Your task to perform on an android device: turn off location Image 0: 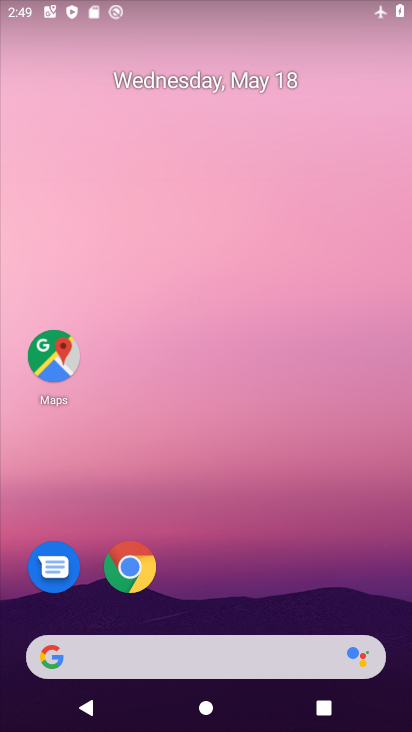
Step 0: drag from (255, 551) to (273, 168)
Your task to perform on an android device: turn off location Image 1: 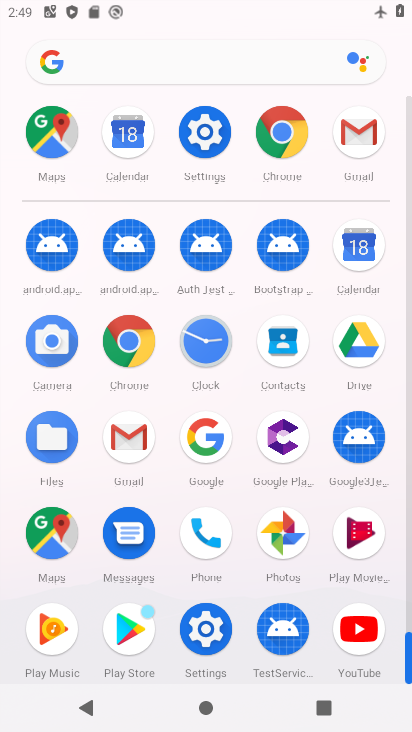
Step 1: click (207, 135)
Your task to perform on an android device: turn off location Image 2: 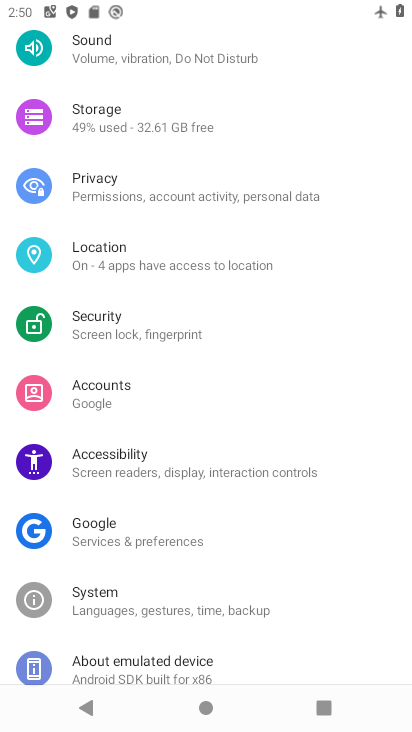
Step 2: click (122, 250)
Your task to perform on an android device: turn off location Image 3: 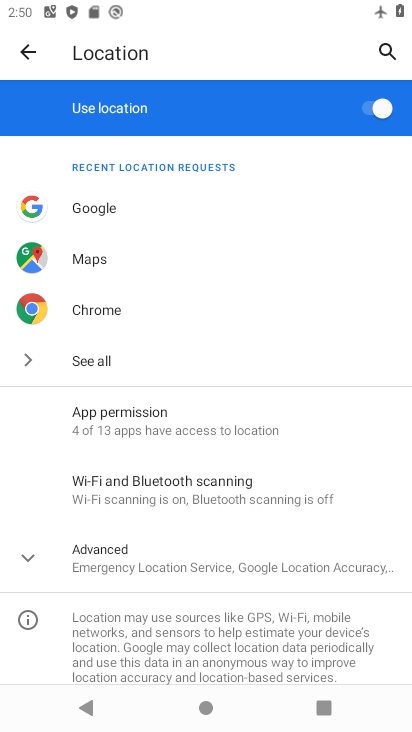
Step 3: click (374, 102)
Your task to perform on an android device: turn off location Image 4: 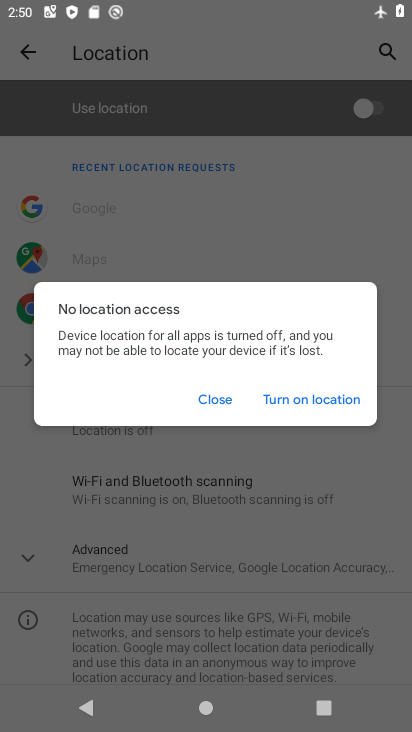
Step 4: click (282, 377)
Your task to perform on an android device: turn off location Image 5: 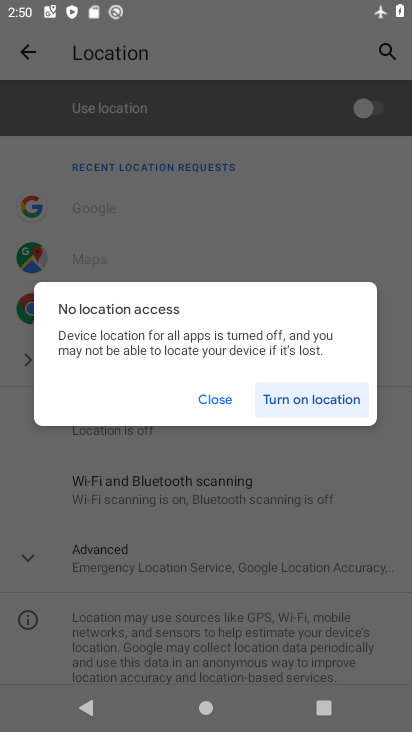
Step 5: click (285, 387)
Your task to perform on an android device: turn off location Image 6: 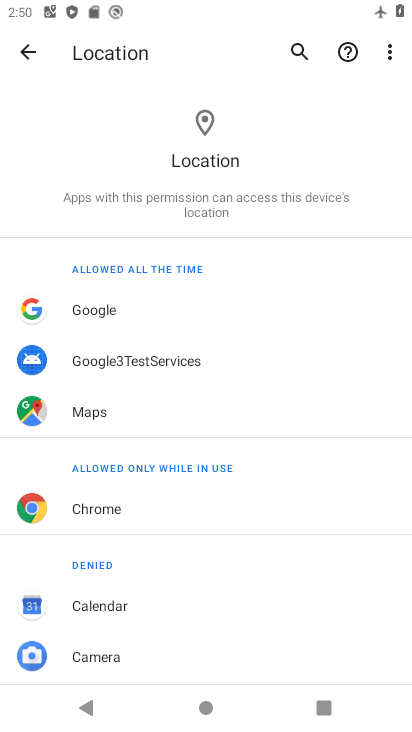
Step 6: task complete